Your task to perform on an android device: star an email in the gmail app Image 0: 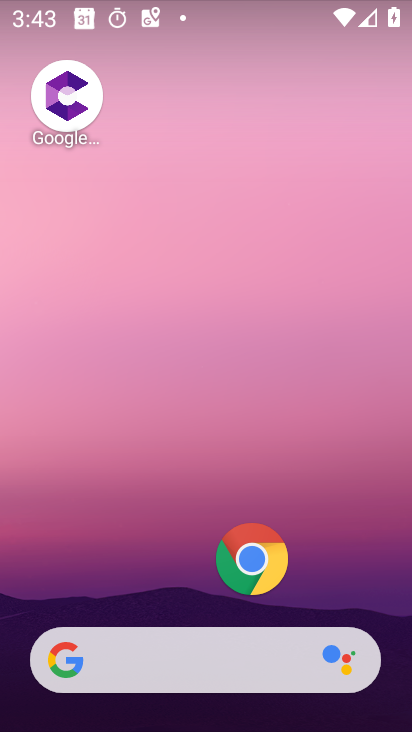
Step 0: click (136, 510)
Your task to perform on an android device: star an email in the gmail app Image 1: 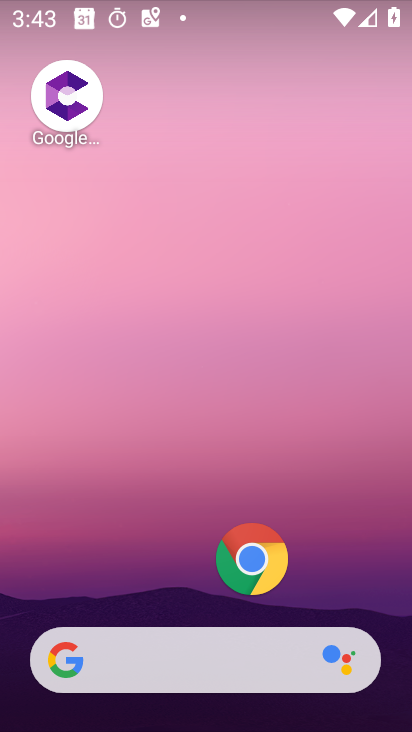
Step 1: drag from (145, 529) to (188, 105)
Your task to perform on an android device: star an email in the gmail app Image 2: 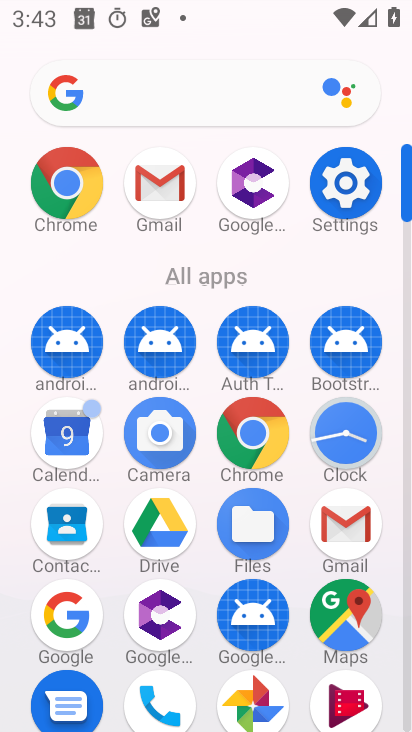
Step 2: click (155, 184)
Your task to perform on an android device: star an email in the gmail app Image 3: 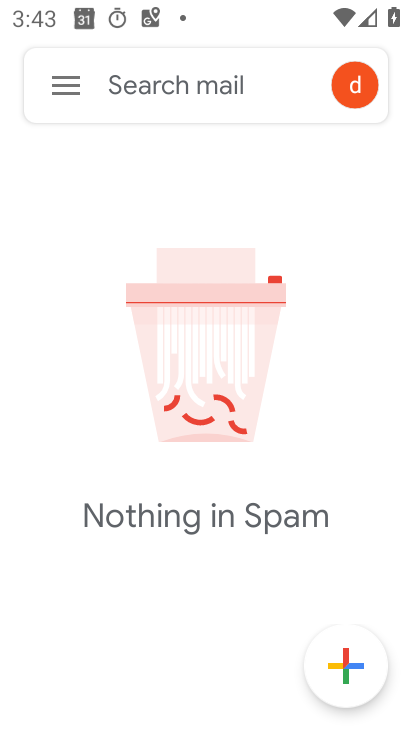
Step 3: click (68, 84)
Your task to perform on an android device: star an email in the gmail app Image 4: 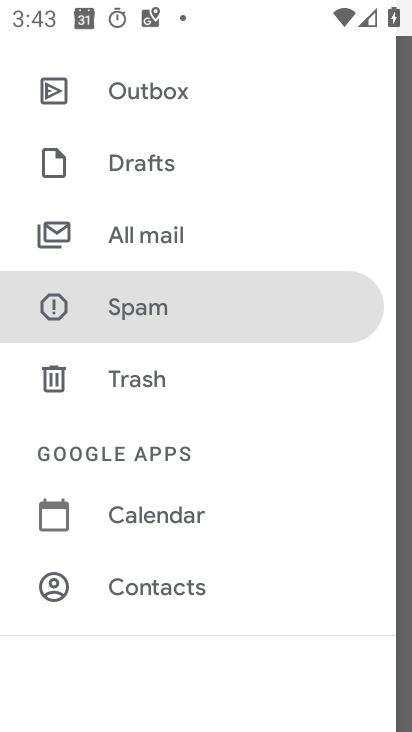
Step 4: drag from (171, 128) to (155, 466)
Your task to perform on an android device: star an email in the gmail app Image 5: 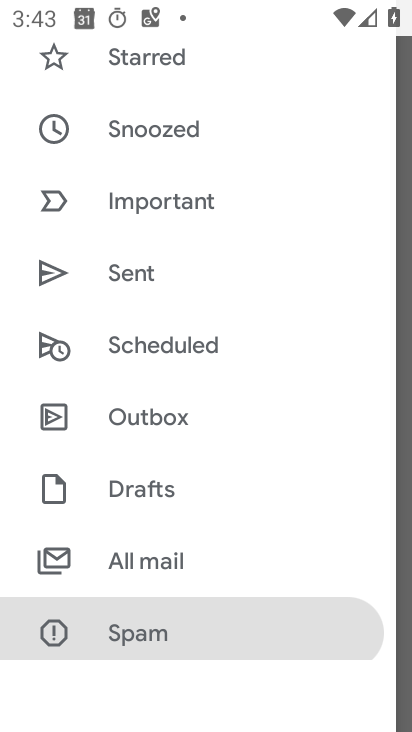
Step 5: drag from (151, 101) to (160, 454)
Your task to perform on an android device: star an email in the gmail app Image 6: 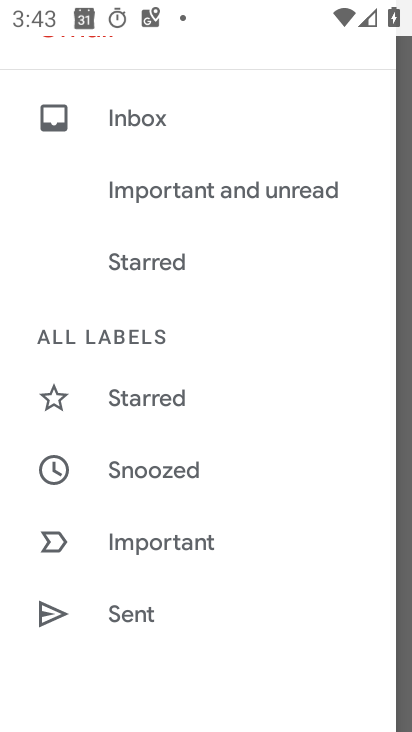
Step 6: drag from (150, 90) to (192, 455)
Your task to perform on an android device: star an email in the gmail app Image 7: 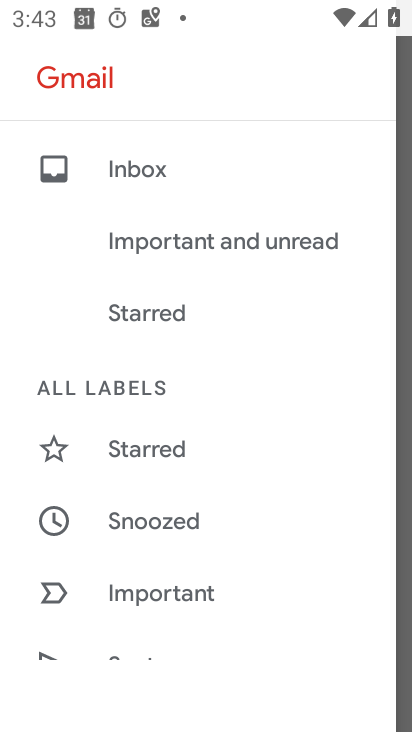
Step 7: drag from (199, 586) to (207, 218)
Your task to perform on an android device: star an email in the gmail app Image 8: 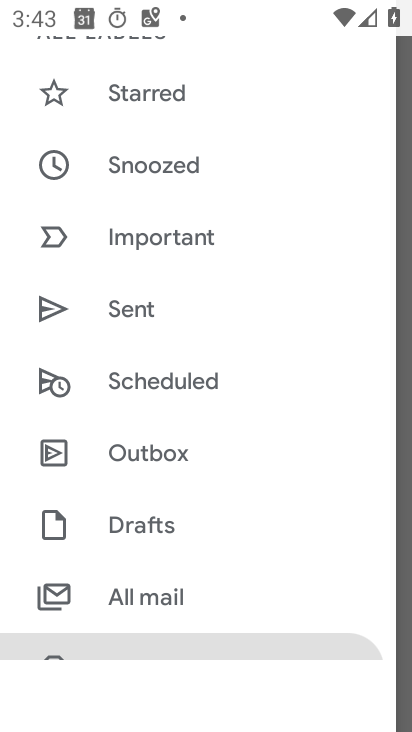
Step 8: click (172, 593)
Your task to perform on an android device: star an email in the gmail app Image 9: 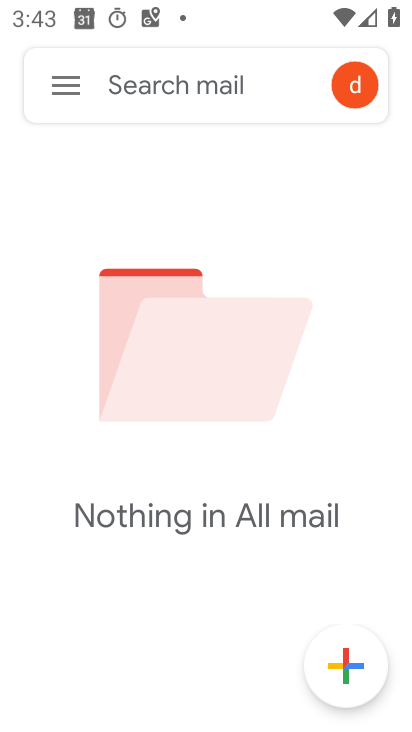
Step 9: task complete